Your task to perform on an android device: Open Youtube and go to the subscriptions tab Image 0: 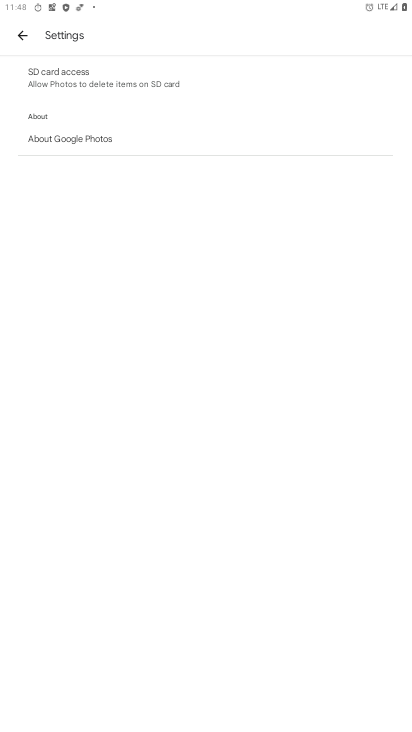
Step 0: press home button
Your task to perform on an android device: Open Youtube and go to the subscriptions tab Image 1: 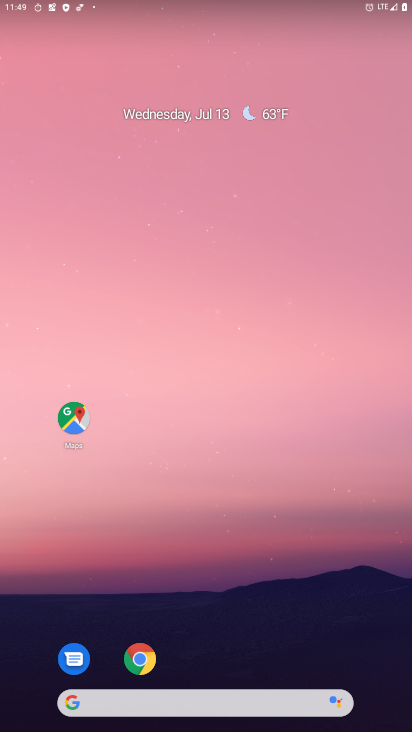
Step 1: drag from (291, 478) to (403, 202)
Your task to perform on an android device: Open Youtube and go to the subscriptions tab Image 2: 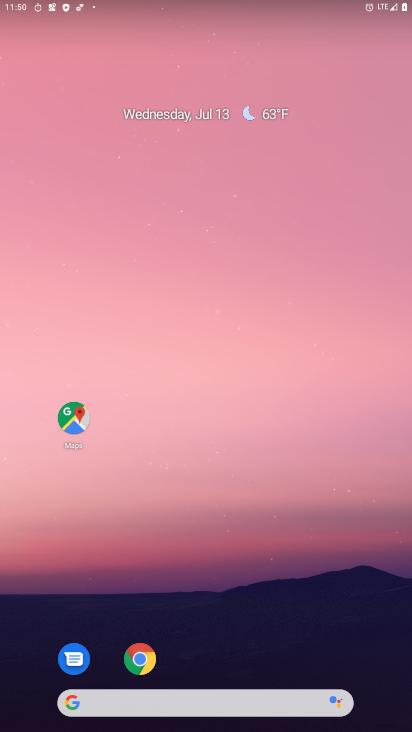
Step 2: drag from (313, 599) to (265, 12)
Your task to perform on an android device: Open Youtube and go to the subscriptions tab Image 3: 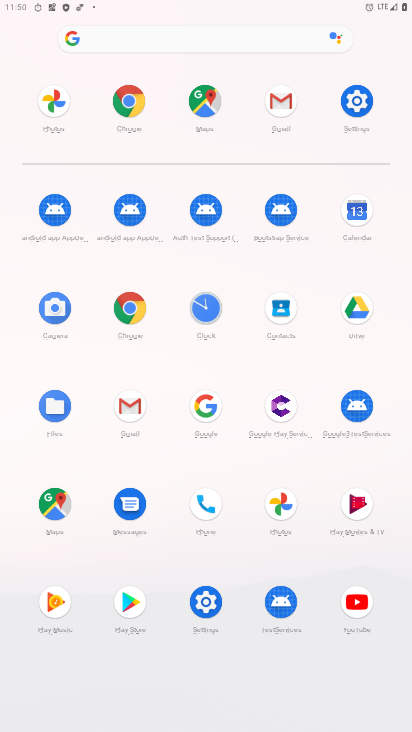
Step 3: click (356, 593)
Your task to perform on an android device: Open Youtube and go to the subscriptions tab Image 4: 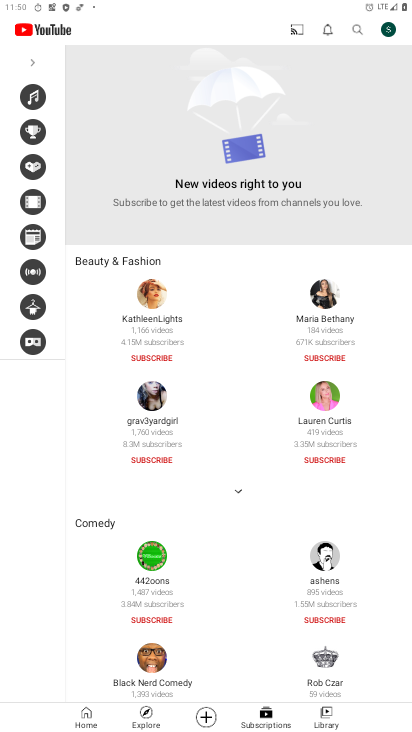
Step 4: click (272, 717)
Your task to perform on an android device: Open Youtube and go to the subscriptions tab Image 5: 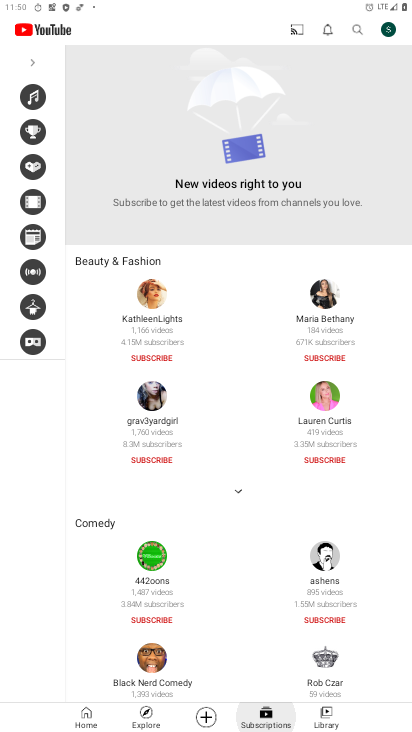
Step 5: click (272, 717)
Your task to perform on an android device: Open Youtube and go to the subscriptions tab Image 6: 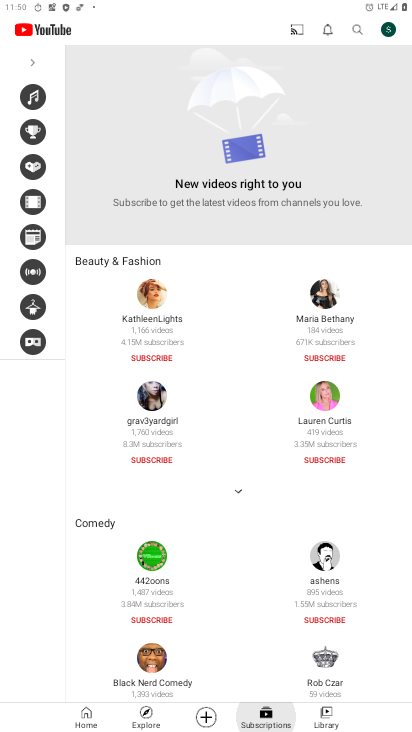
Step 6: click (272, 717)
Your task to perform on an android device: Open Youtube and go to the subscriptions tab Image 7: 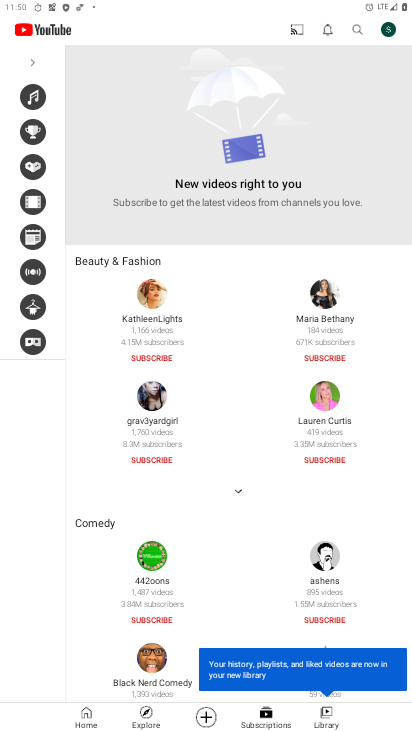
Step 7: task complete